Your task to perform on an android device: change notification settings in the gmail app Image 0: 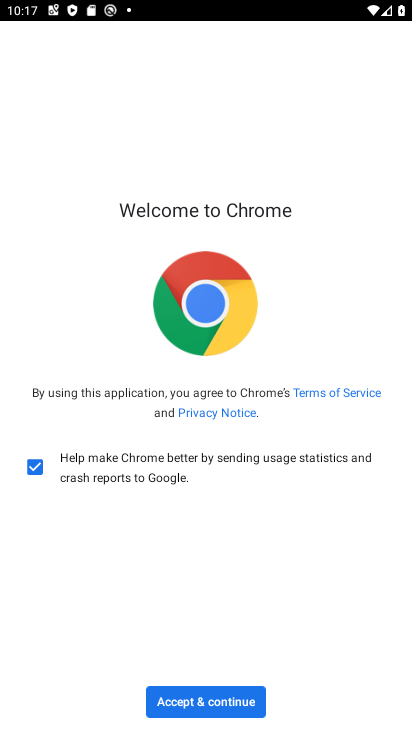
Step 0: click (235, 705)
Your task to perform on an android device: change notification settings in the gmail app Image 1: 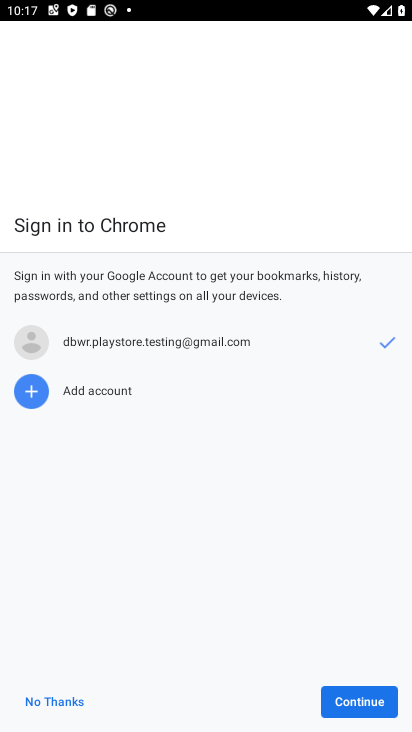
Step 1: press home button
Your task to perform on an android device: change notification settings in the gmail app Image 2: 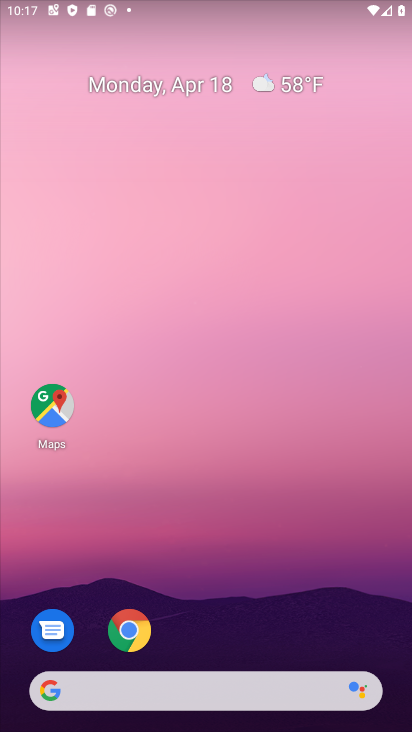
Step 2: drag from (197, 11) to (172, 722)
Your task to perform on an android device: change notification settings in the gmail app Image 3: 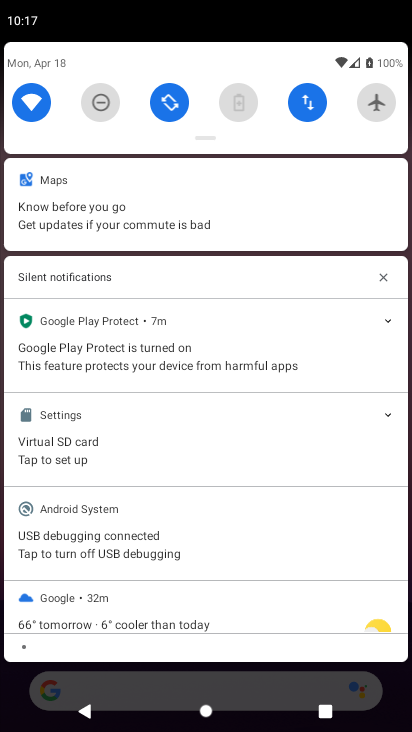
Step 3: drag from (193, 58) to (380, 693)
Your task to perform on an android device: change notification settings in the gmail app Image 4: 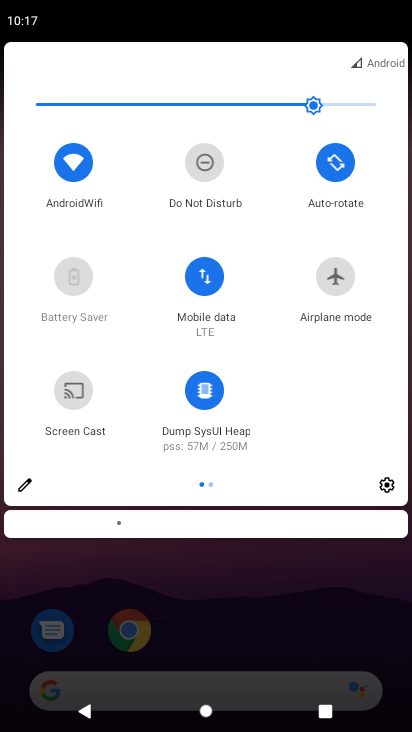
Step 4: click (389, 489)
Your task to perform on an android device: change notification settings in the gmail app Image 5: 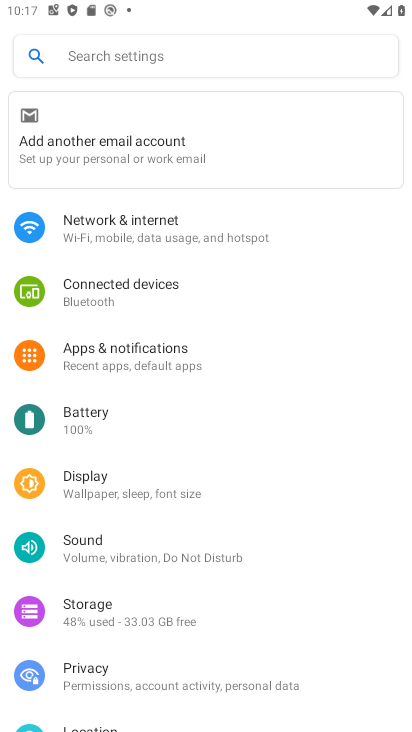
Step 5: click (220, 361)
Your task to perform on an android device: change notification settings in the gmail app Image 6: 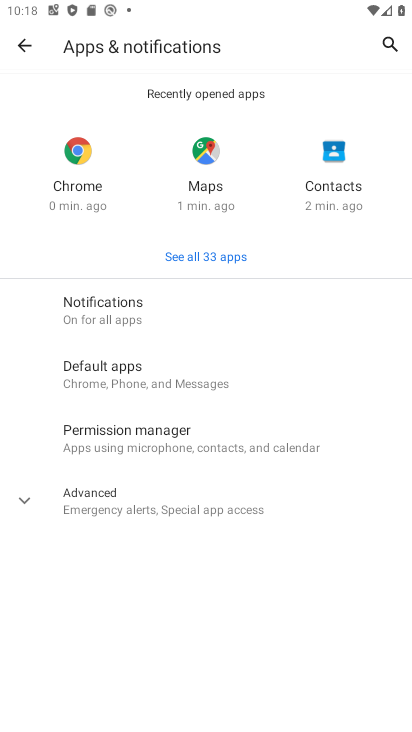
Step 6: click (208, 252)
Your task to perform on an android device: change notification settings in the gmail app Image 7: 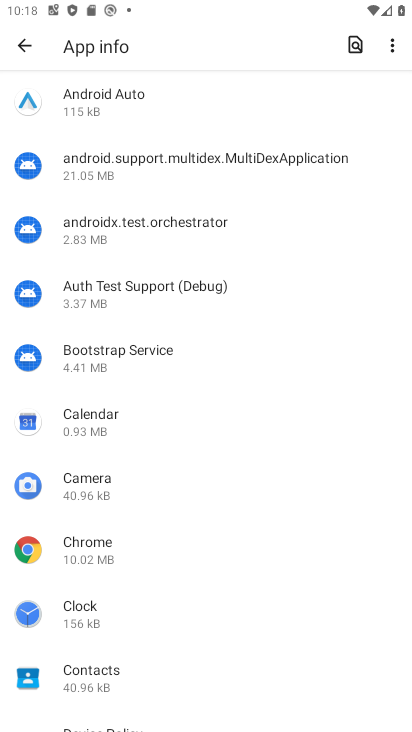
Step 7: drag from (111, 621) to (191, 74)
Your task to perform on an android device: change notification settings in the gmail app Image 8: 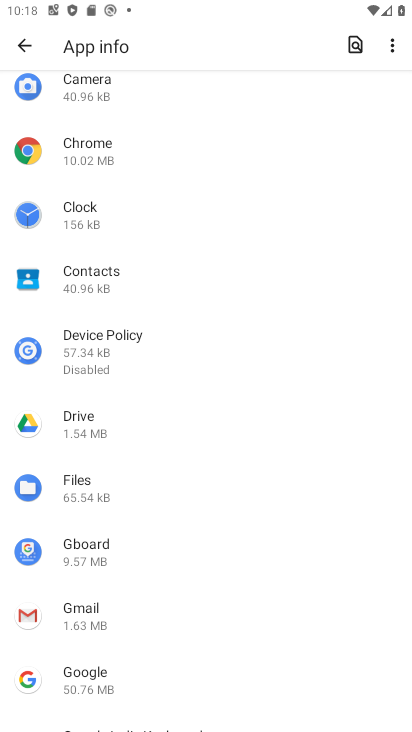
Step 8: click (97, 622)
Your task to perform on an android device: change notification settings in the gmail app Image 9: 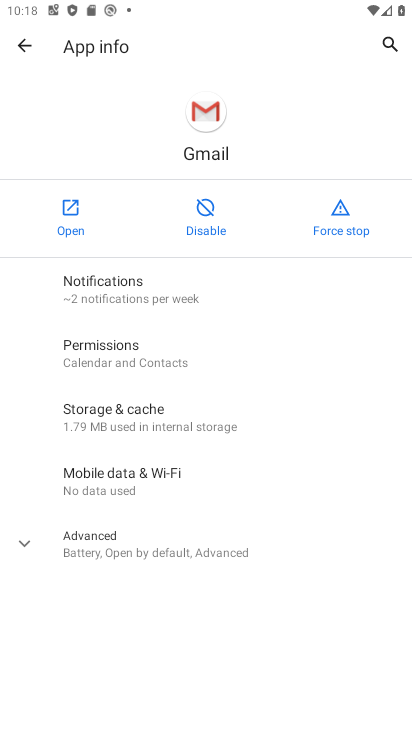
Step 9: click (145, 295)
Your task to perform on an android device: change notification settings in the gmail app Image 10: 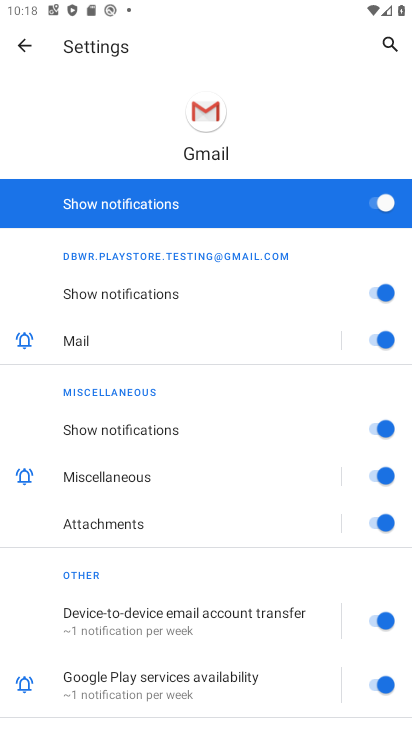
Step 10: click (381, 198)
Your task to perform on an android device: change notification settings in the gmail app Image 11: 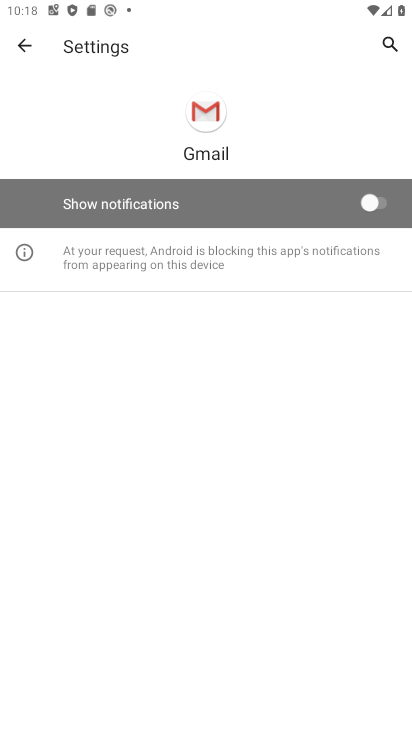
Step 11: task complete